Your task to perform on an android device: Open Youtube and go to "Your channel" Image 0: 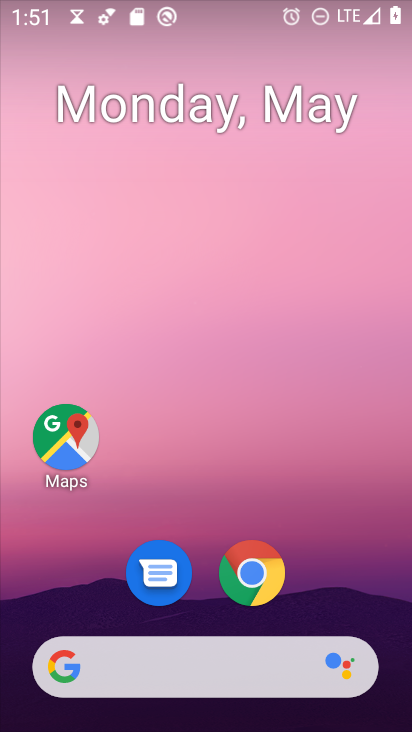
Step 0: drag from (137, 561) to (176, 5)
Your task to perform on an android device: Open Youtube and go to "Your channel" Image 1: 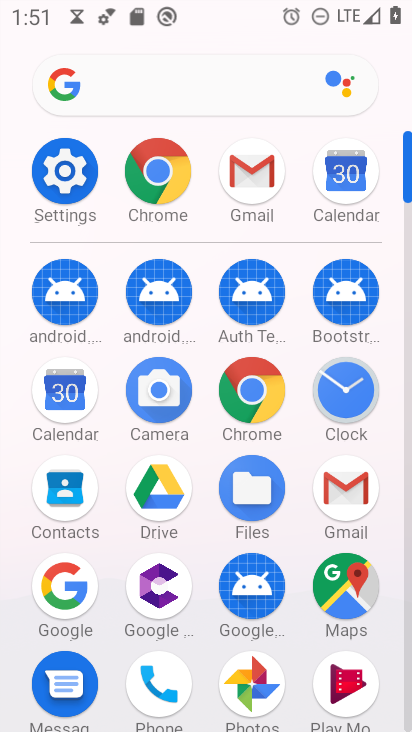
Step 1: drag from (303, 528) to (330, 46)
Your task to perform on an android device: Open Youtube and go to "Your channel" Image 2: 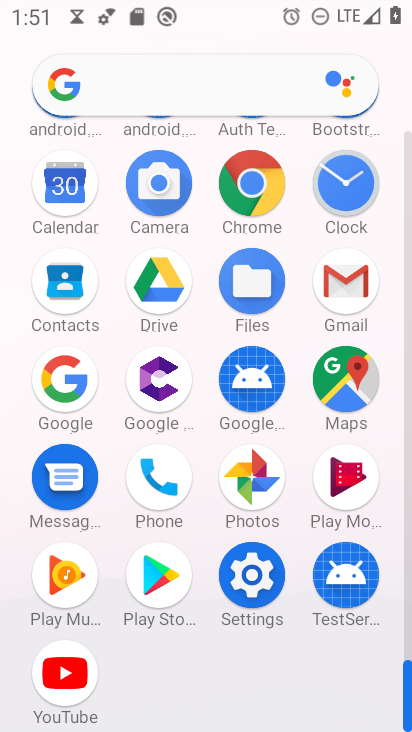
Step 2: click (55, 680)
Your task to perform on an android device: Open Youtube and go to "Your channel" Image 3: 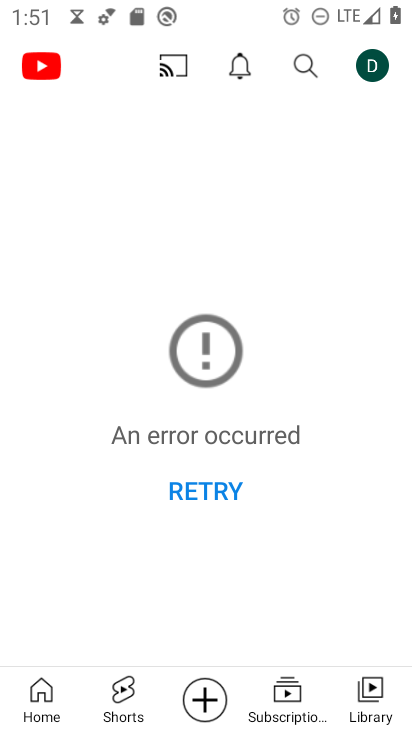
Step 3: drag from (375, 64) to (314, 64)
Your task to perform on an android device: Open Youtube and go to "Your channel" Image 4: 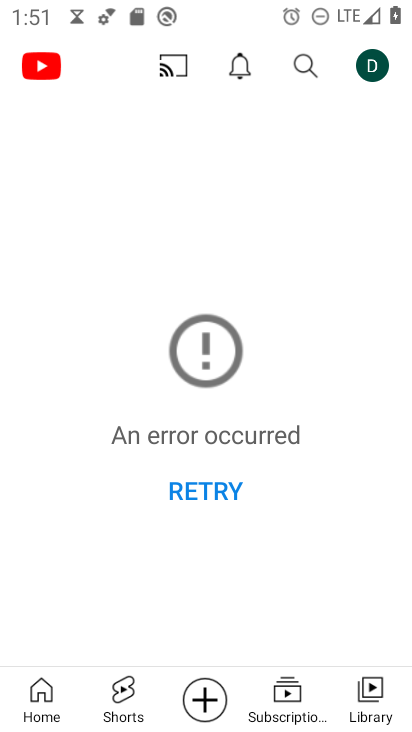
Step 4: click (372, 61)
Your task to perform on an android device: Open Youtube and go to "Your channel" Image 5: 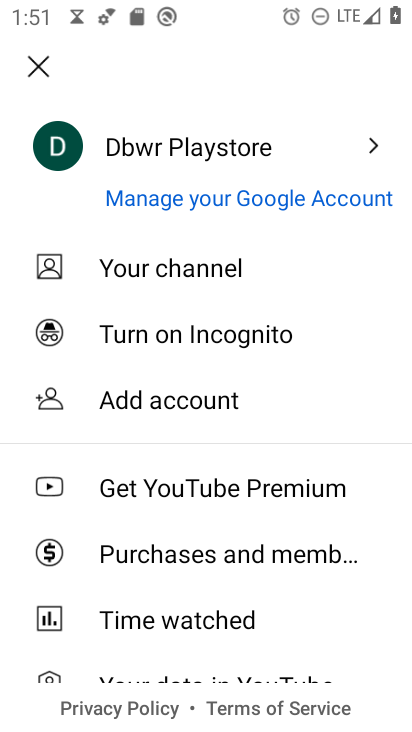
Step 5: click (171, 258)
Your task to perform on an android device: Open Youtube and go to "Your channel" Image 6: 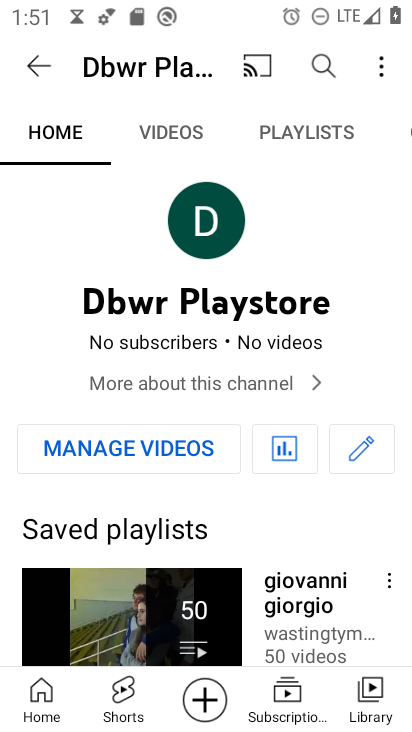
Step 6: task complete